Your task to perform on an android device: Open the web browser Image 0: 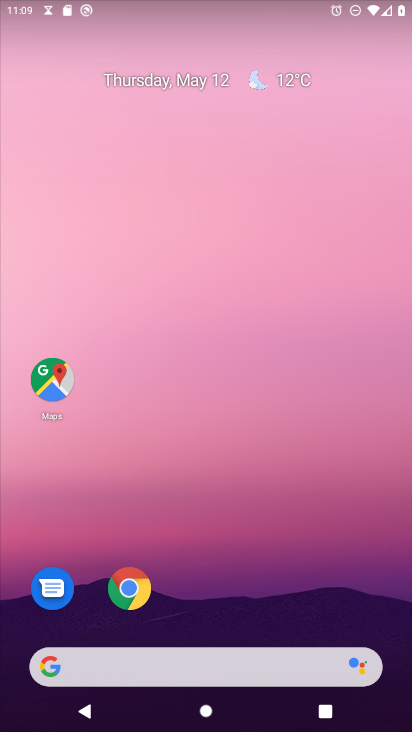
Step 0: click (129, 590)
Your task to perform on an android device: Open the web browser Image 1: 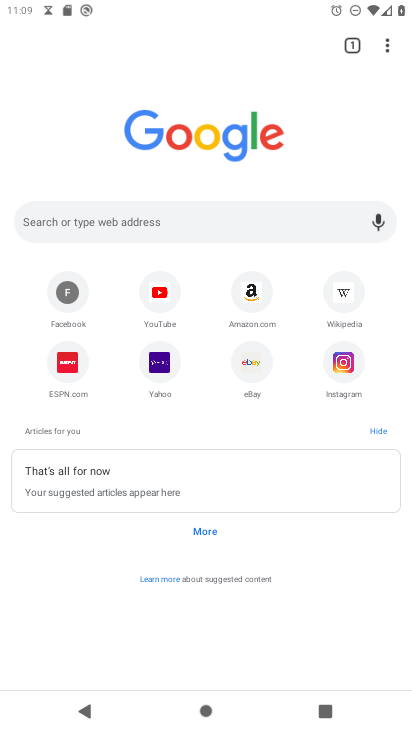
Step 1: task complete